Your task to perform on an android device: Open Yahoo.com Image 0: 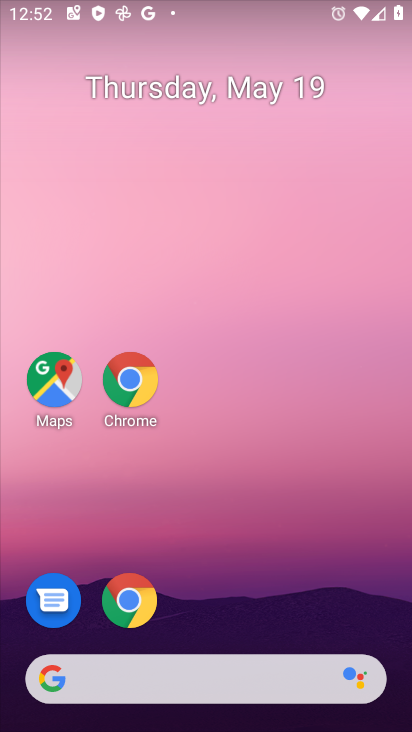
Step 0: drag from (275, 508) to (221, 90)
Your task to perform on an android device: Open Yahoo.com Image 1: 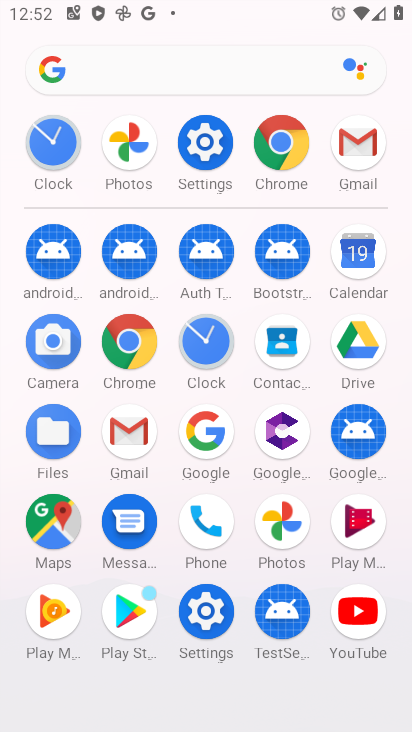
Step 1: click (273, 140)
Your task to perform on an android device: Open Yahoo.com Image 2: 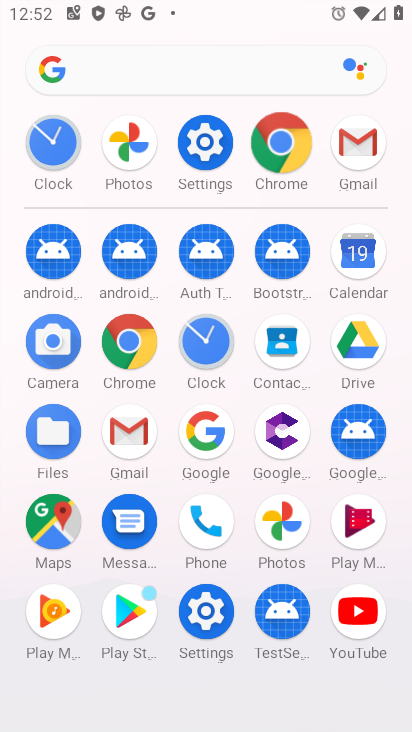
Step 2: click (277, 138)
Your task to perform on an android device: Open Yahoo.com Image 3: 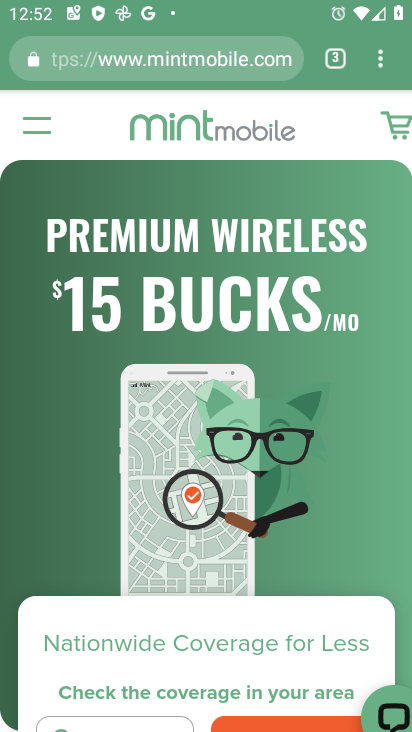
Step 3: press back button
Your task to perform on an android device: Open Yahoo.com Image 4: 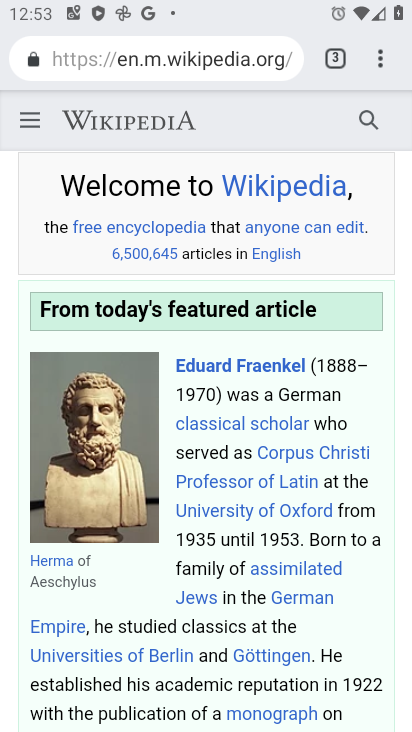
Step 4: press home button
Your task to perform on an android device: Open Yahoo.com Image 5: 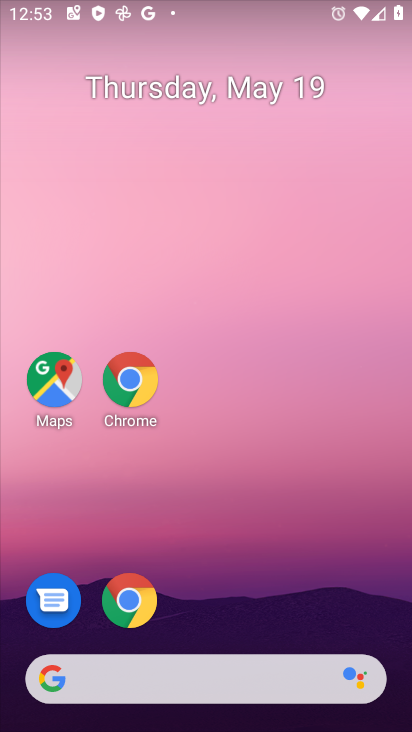
Step 5: drag from (261, 483) to (254, 101)
Your task to perform on an android device: Open Yahoo.com Image 6: 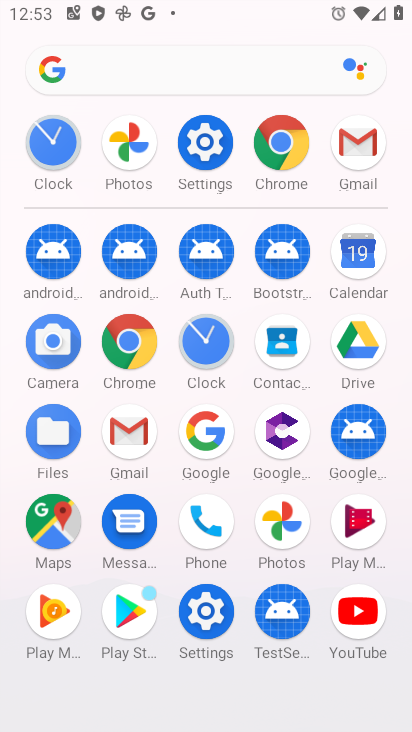
Step 6: click (287, 143)
Your task to perform on an android device: Open Yahoo.com Image 7: 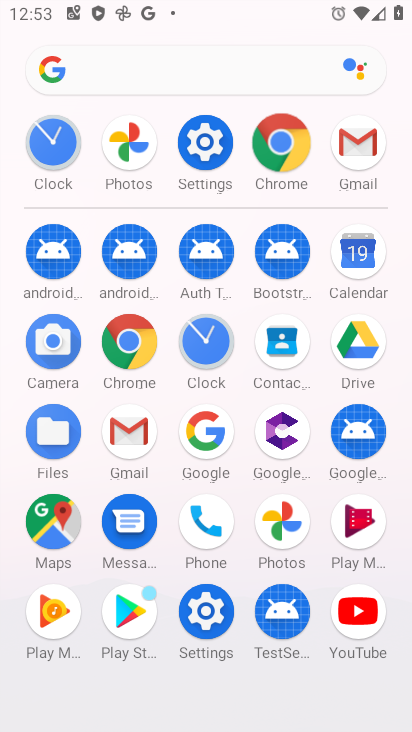
Step 7: click (287, 143)
Your task to perform on an android device: Open Yahoo.com Image 8: 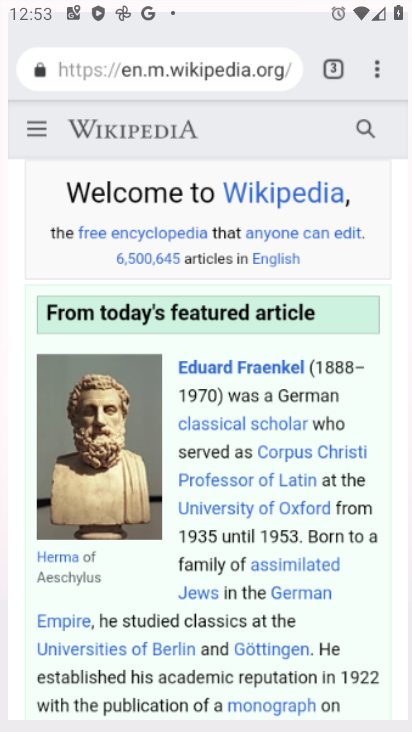
Step 8: click (287, 143)
Your task to perform on an android device: Open Yahoo.com Image 9: 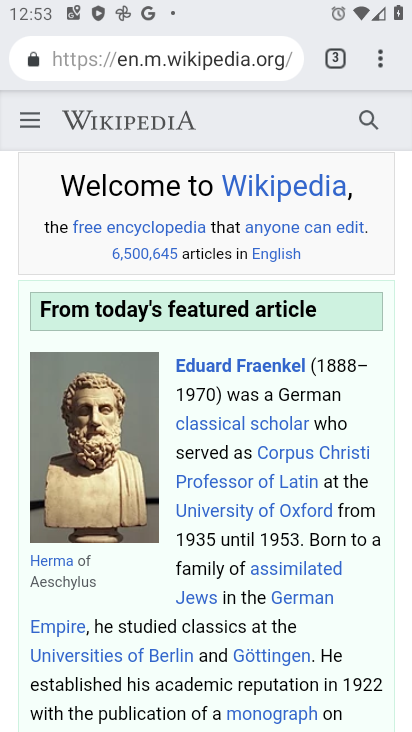
Step 9: click (380, 66)
Your task to perform on an android device: Open Yahoo.com Image 10: 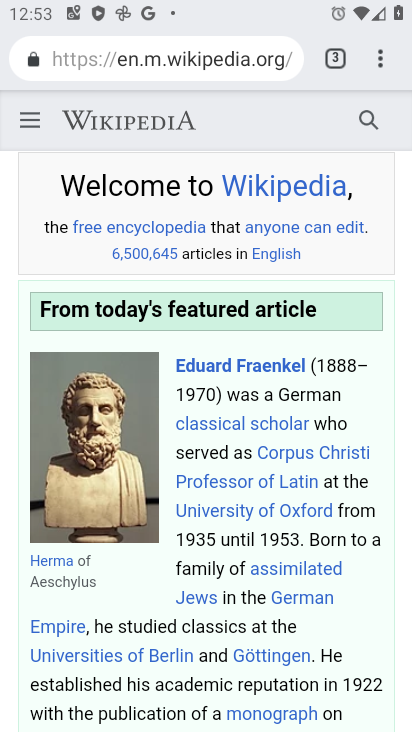
Step 10: drag from (374, 53) to (170, 116)
Your task to perform on an android device: Open Yahoo.com Image 11: 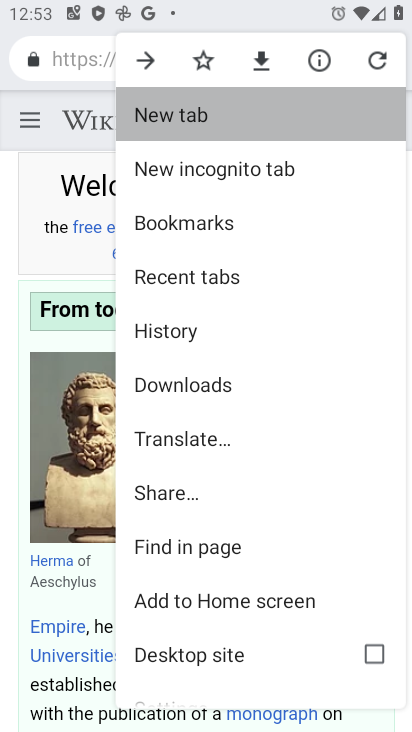
Step 11: click (170, 116)
Your task to perform on an android device: Open Yahoo.com Image 12: 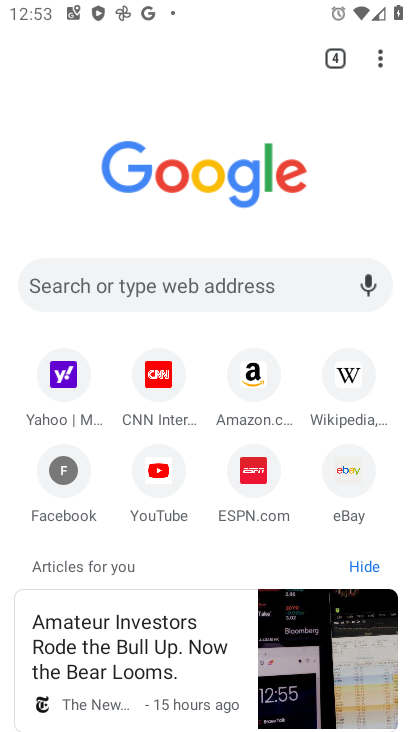
Step 12: click (60, 382)
Your task to perform on an android device: Open Yahoo.com Image 13: 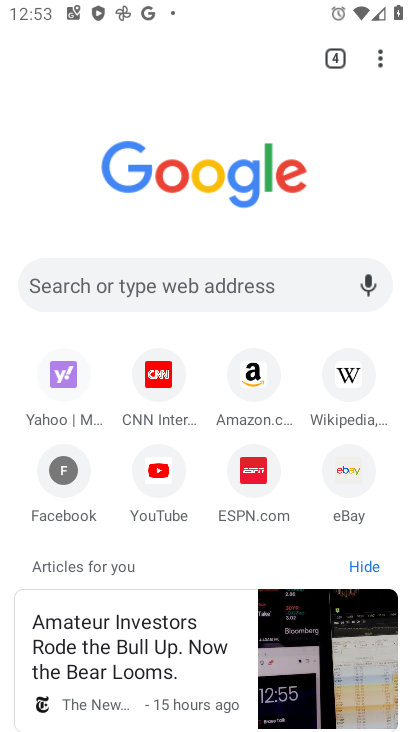
Step 13: click (60, 382)
Your task to perform on an android device: Open Yahoo.com Image 14: 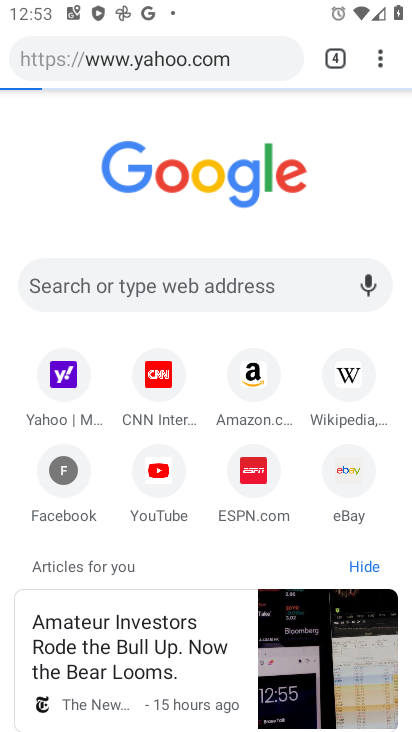
Step 14: click (60, 382)
Your task to perform on an android device: Open Yahoo.com Image 15: 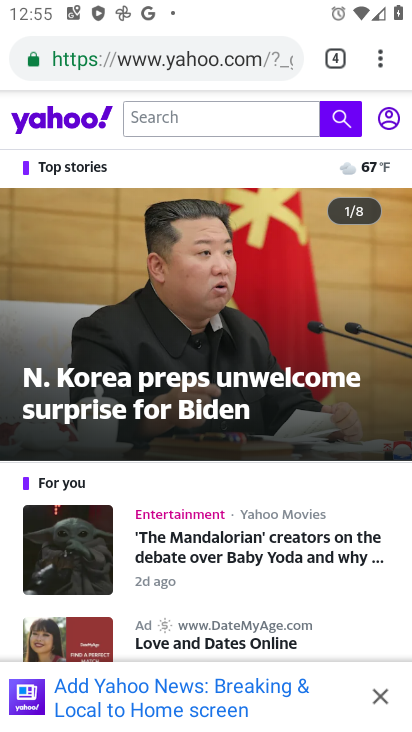
Step 15: task complete